Your task to perform on an android device: Find coffee shops on Maps Image 0: 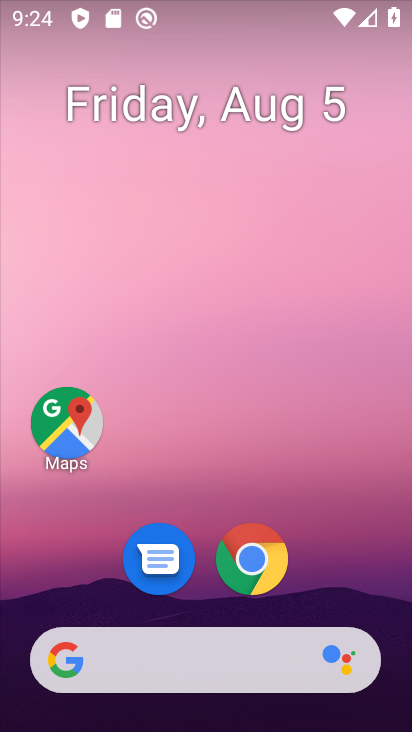
Step 0: drag from (346, 521) to (284, 40)
Your task to perform on an android device: Find coffee shops on Maps Image 1: 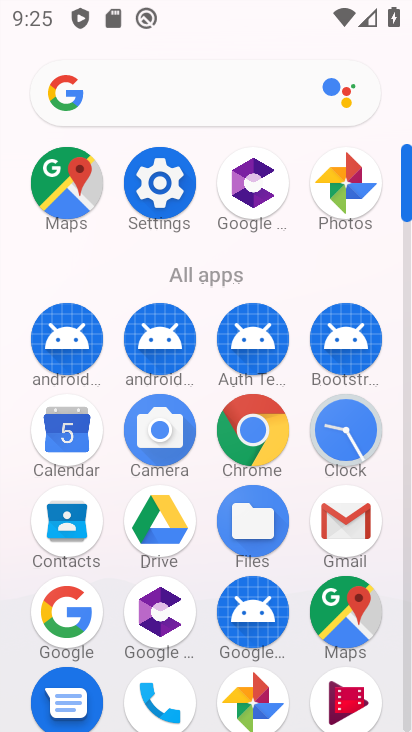
Step 1: drag from (143, 515) to (122, 72)
Your task to perform on an android device: Find coffee shops on Maps Image 2: 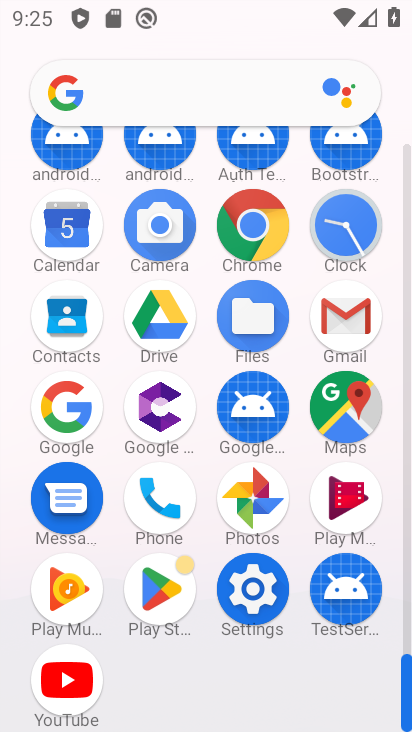
Step 2: drag from (126, 267) to (166, 642)
Your task to perform on an android device: Find coffee shops on Maps Image 3: 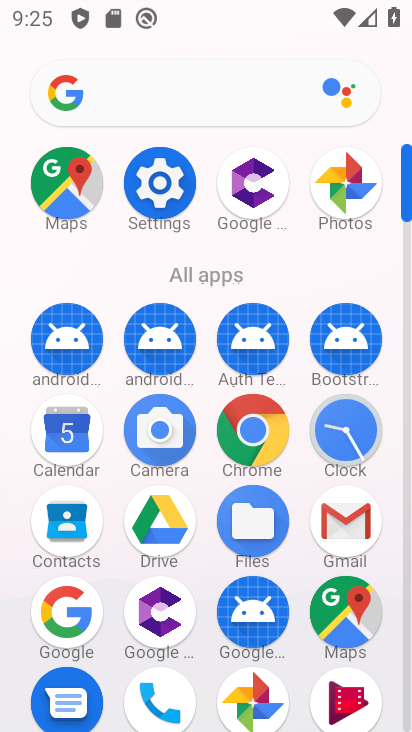
Step 3: click (58, 173)
Your task to perform on an android device: Find coffee shops on Maps Image 4: 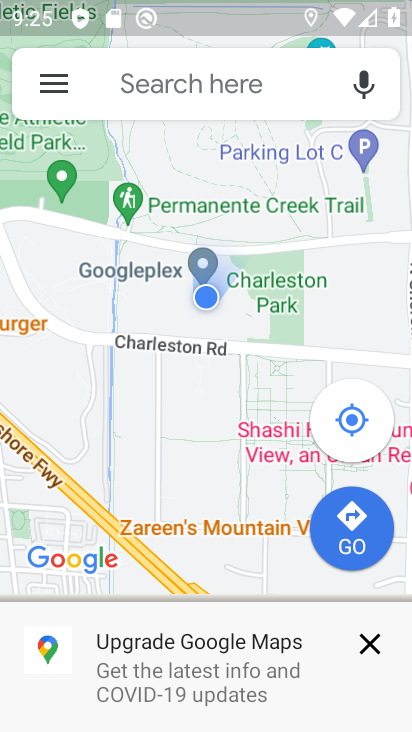
Step 4: click (233, 77)
Your task to perform on an android device: Find coffee shops on Maps Image 5: 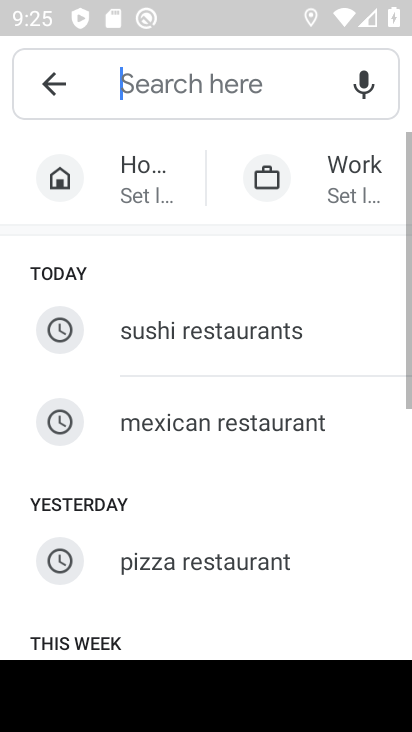
Step 5: drag from (269, 423) to (255, 97)
Your task to perform on an android device: Find coffee shops on Maps Image 6: 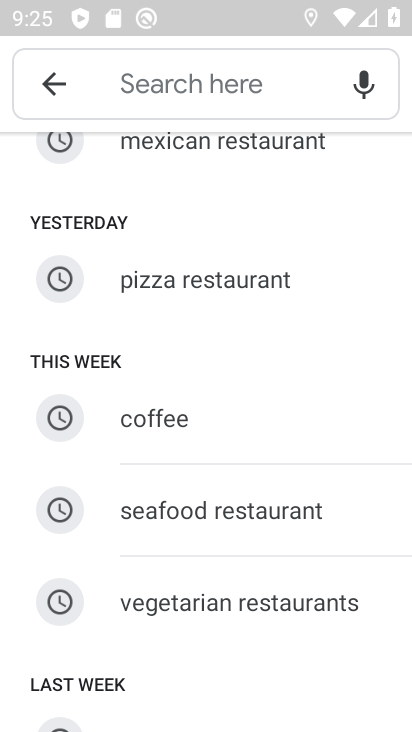
Step 6: drag from (255, 497) to (274, 132)
Your task to perform on an android device: Find coffee shops on Maps Image 7: 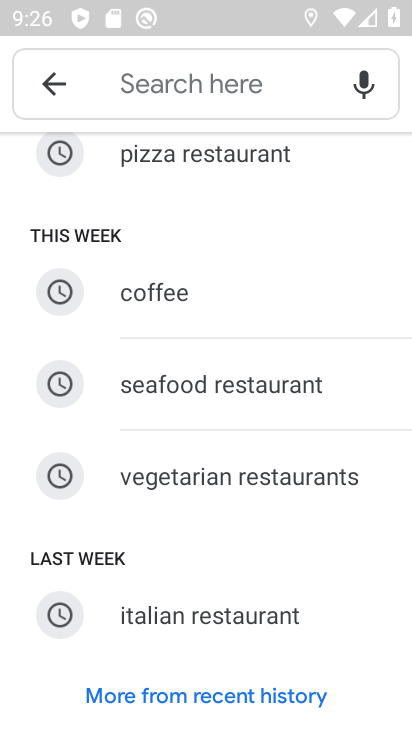
Step 7: click (191, 84)
Your task to perform on an android device: Find coffee shops on Maps Image 8: 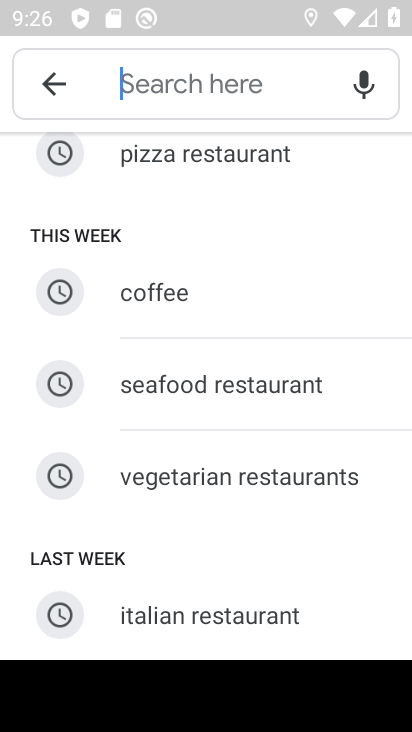
Step 8: type "coffee shops"
Your task to perform on an android device: Find coffee shops on Maps Image 9: 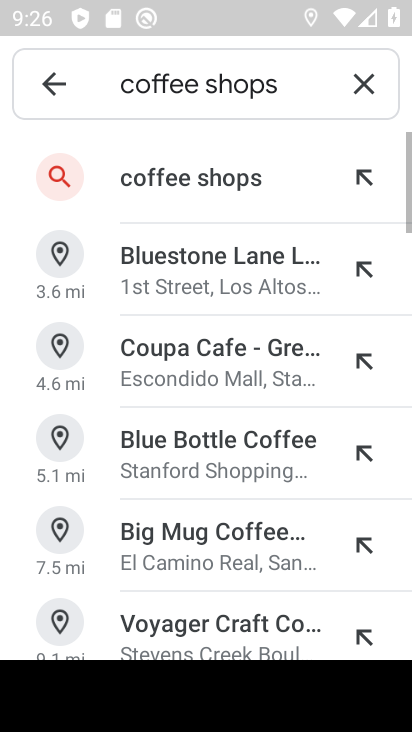
Step 9: click (247, 168)
Your task to perform on an android device: Find coffee shops on Maps Image 10: 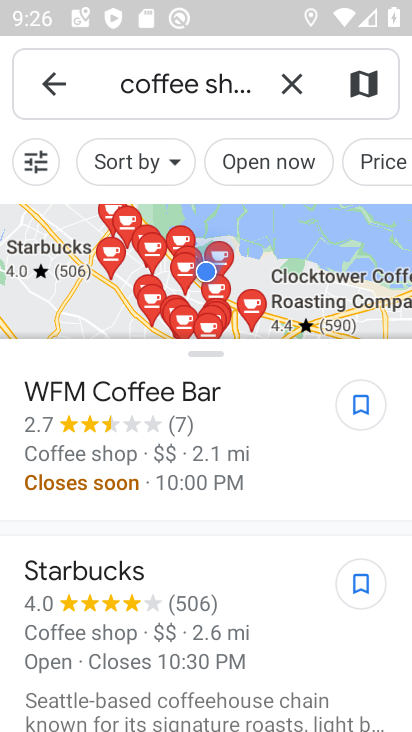
Step 10: task complete